Your task to perform on an android device: Go to CNN.com Image 0: 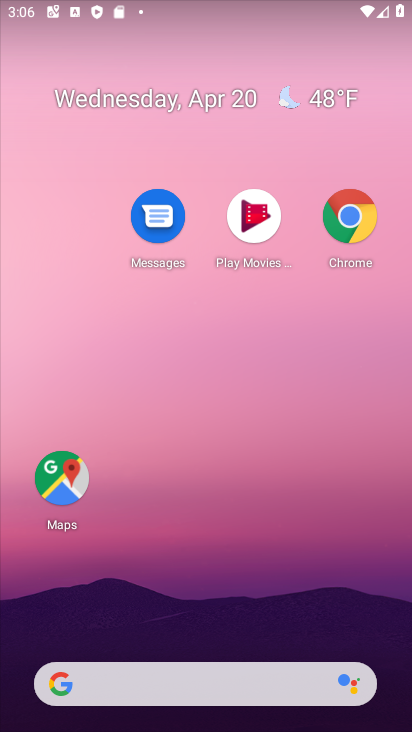
Step 0: click (360, 219)
Your task to perform on an android device: Go to CNN.com Image 1: 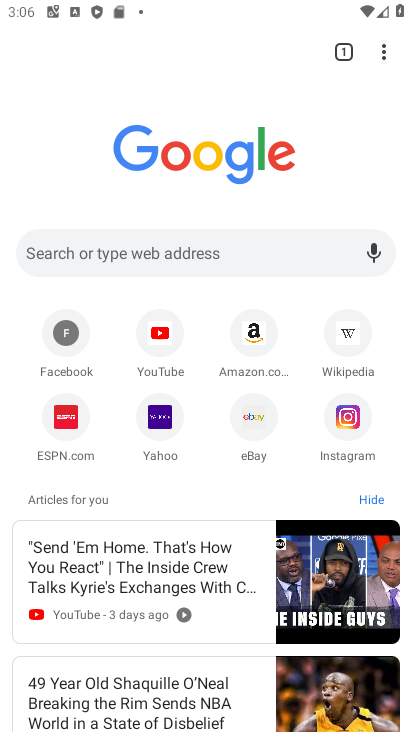
Step 1: click (209, 247)
Your task to perform on an android device: Go to CNN.com Image 2: 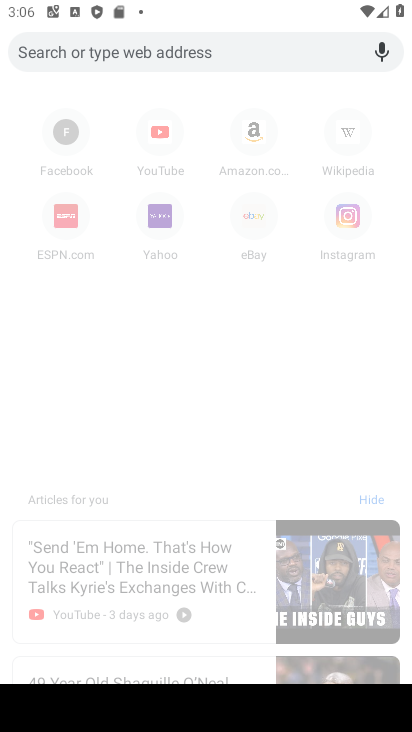
Step 2: type " CNN.com"
Your task to perform on an android device: Go to CNN.com Image 3: 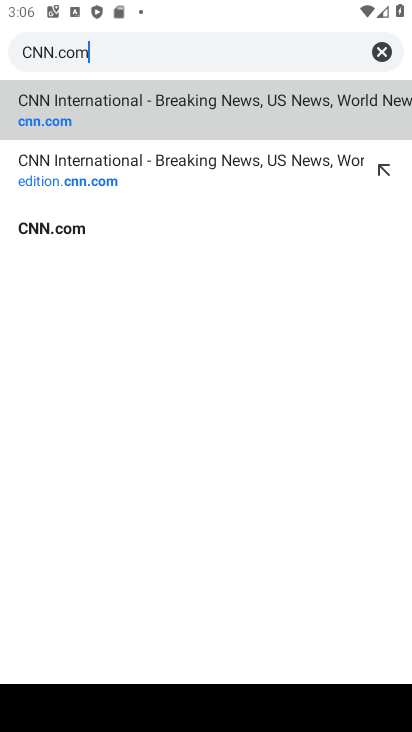
Step 3: click (294, 112)
Your task to perform on an android device: Go to CNN.com Image 4: 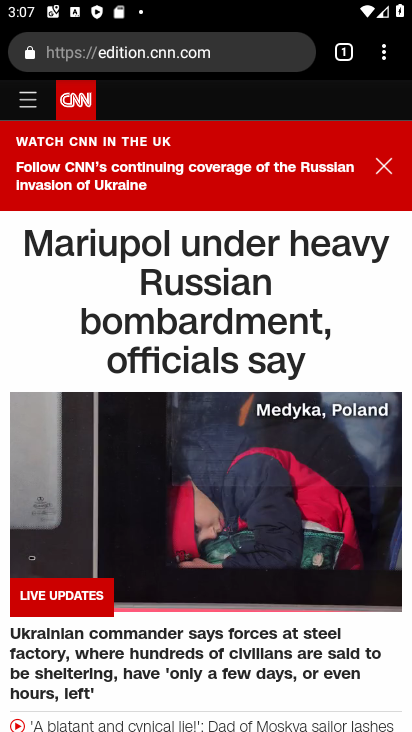
Step 4: task complete